Your task to perform on an android device: What's the latest news in planetary science? Image 0: 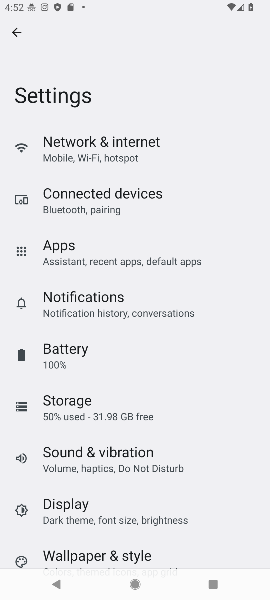
Step 0: press home button
Your task to perform on an android device: What's the latest news in planetary science? Image 1: 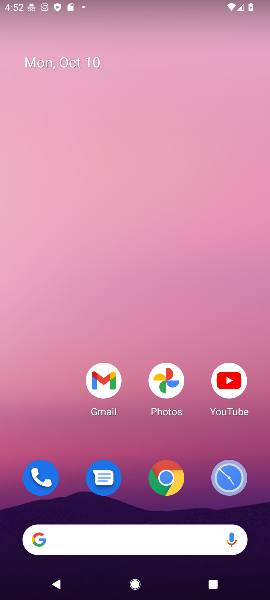
Step 1: click (166, 488)
Your task to perform on an android device: What's the latest news in planetary science? Image 2: 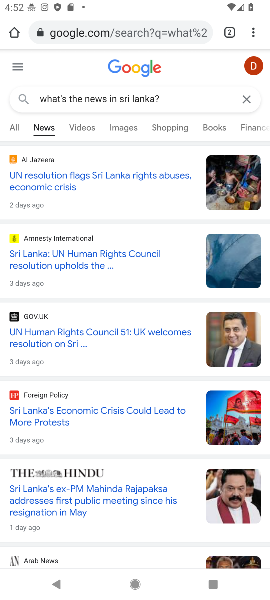
Step 2: click (99, 36)
Your task to perform on an android device: What's the latest news in planetary science? Image 3: 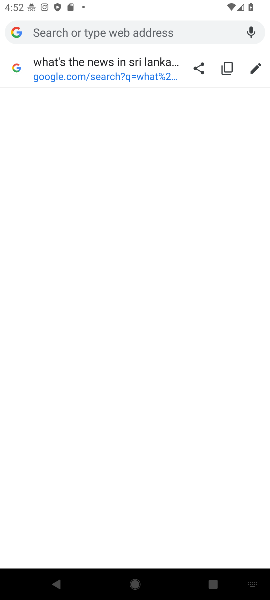
Step 3: type "What's the latest news in planetary science?"
Your task to perform on an android device: What's the latest news in planetary science? Image 4: 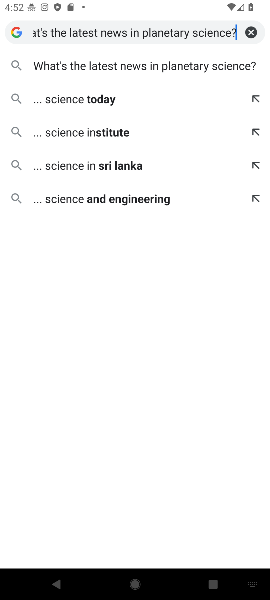
Step 4: type "What's the latest news in planetary science?"
Your task to perform on an android device: What's the latest news in planetary science? Image 5: 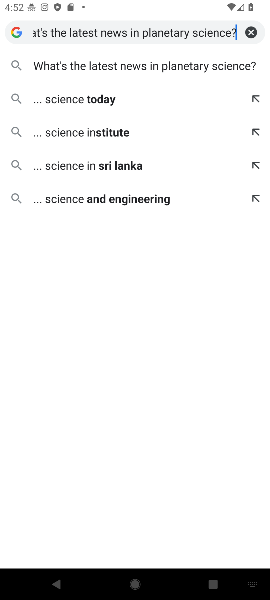
Step 5: click (182, 62)
Your task to perform on an android device: What's the latest news in planetary science? Image 6: 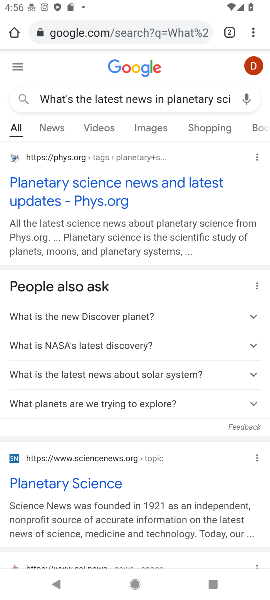
Step 6: task complete